Your task to perform on an android device: Do I have any events today? Image 0: 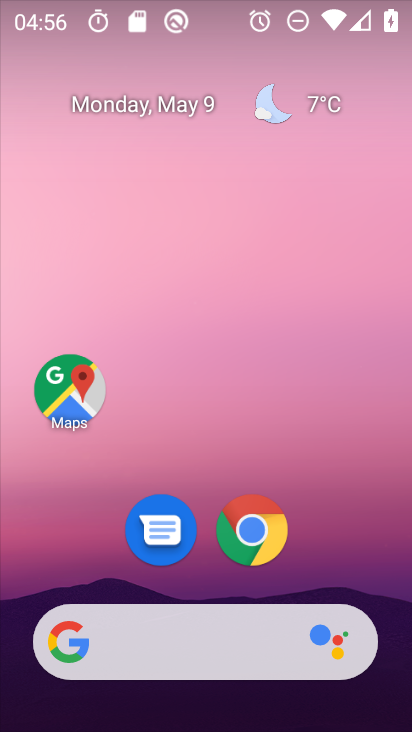
Step 0: drag from (184, 598) to (325, 32)
Your task to perform on an android device: Do I have any events today? Image 1: 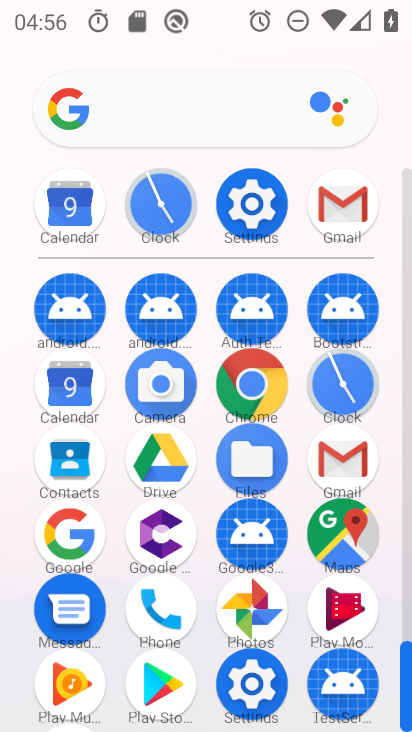
Step 1: click (69, 388)
Your task to perform on an android device: Do I have any events today? Image 2: 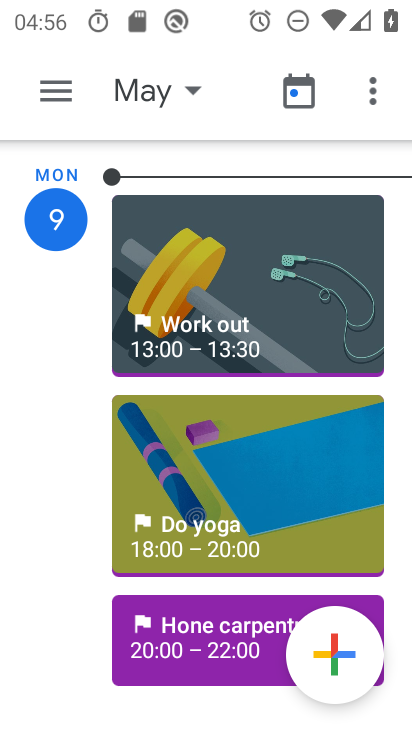
Step 2: click (192, 645)
Your task to perform on an android device: Do I have any events today? Image 3: 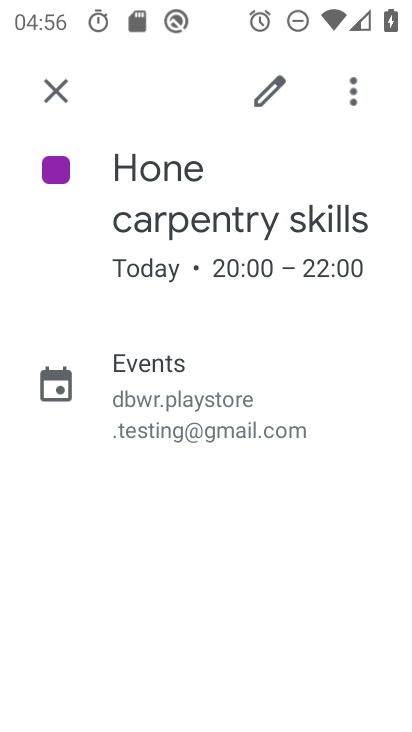
Step 3: task complete